Your task to perform on an android device: change timer sound Image 0: 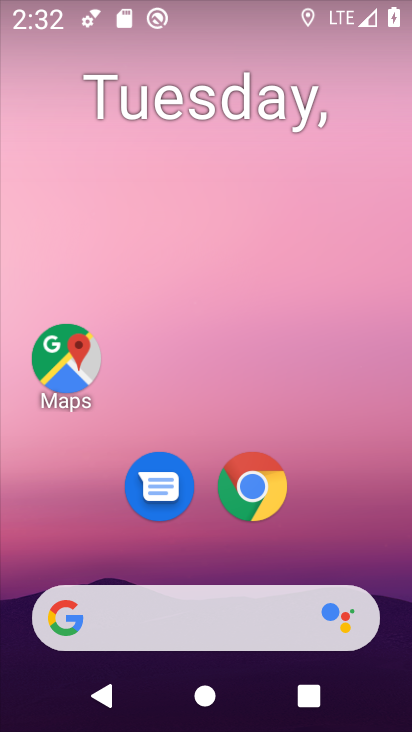
Step 0: press home button
Your task to perform on an android device: change timer sound Image 1: 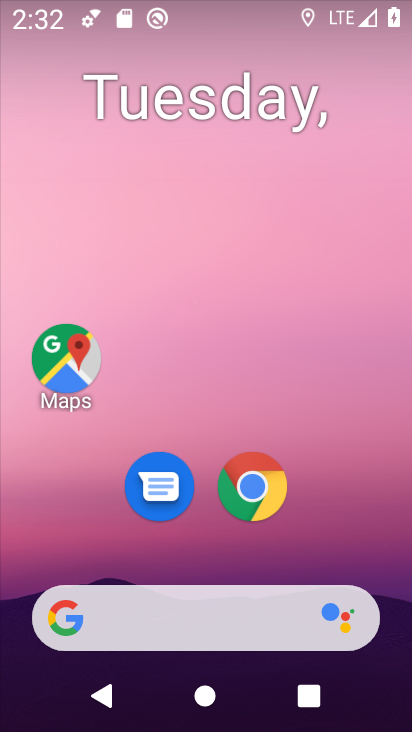
Step 1: drag from (354, 537) to (338, 117)
Your task to perform on an android device: change timer sound Image 2: 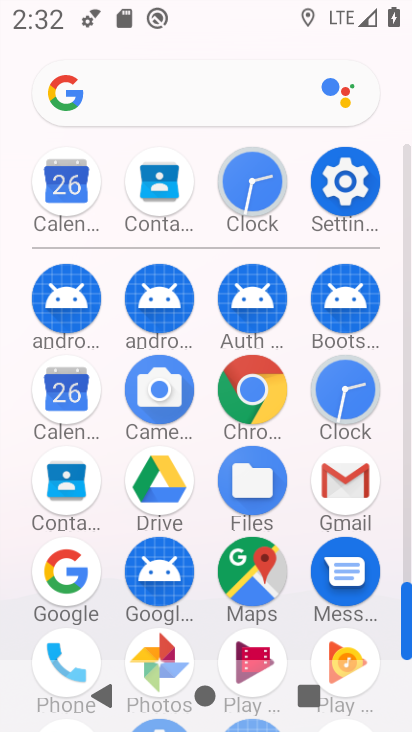
Step 2: click (347, 392)
Your task to perform on an android device: change timer sound Image 3: 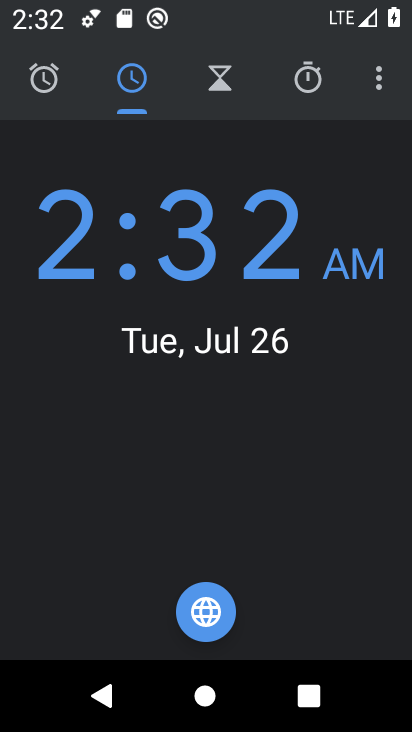
Step 3: click (377, 88)
Your task to perform on an android device: change timer sound Image 4: 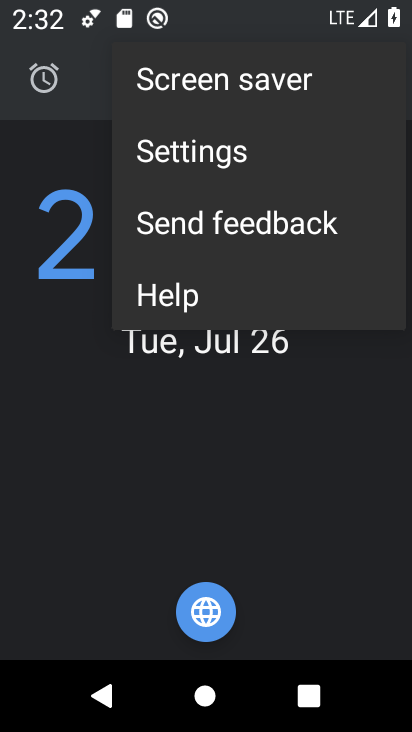
Step 4: click (263, 155)
Your task to perform on an android device: change timer sound Image 5: 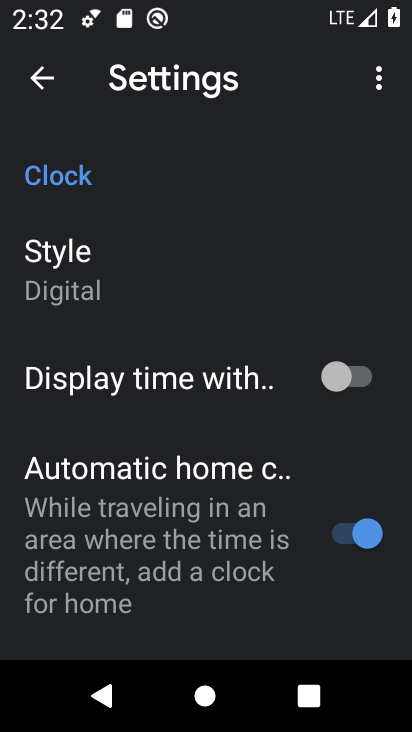
Step 5: drag from (281, 505) to (283, 416)
Your task to perform on an android device: change timer sound Image 6: 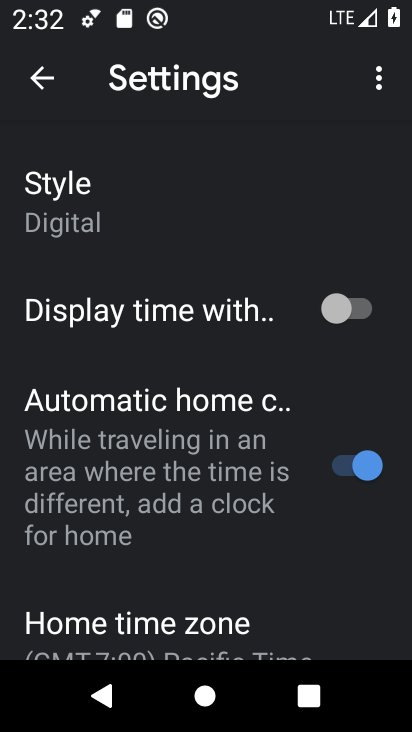
Step 6: drag from (283, 537) to (283, 460)
Your task to perform on an android device: change timer sound Image 7: 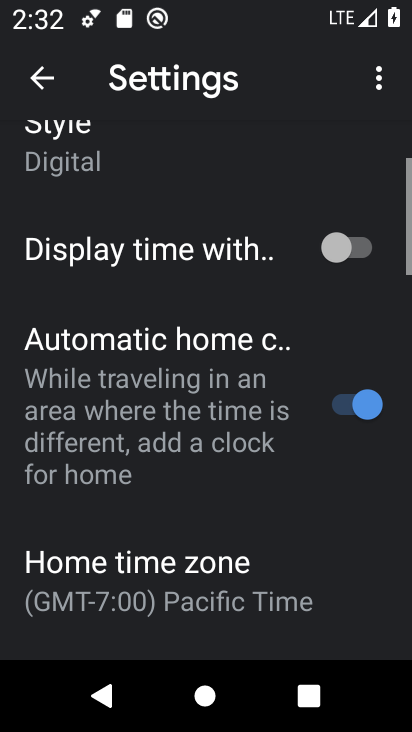
Step 7: click (273, 486)
Your task to perform on an android device: change timer sound Image 8: 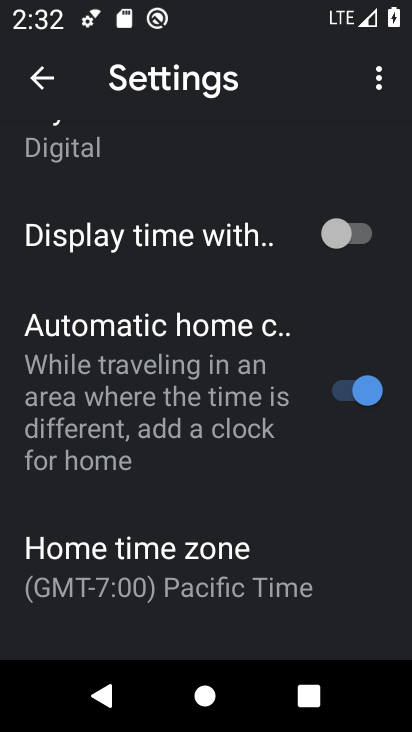
Step 8: drag from (284, 549) to (281, 441)
Your task to perform on an android device: change timer sound Image 9: 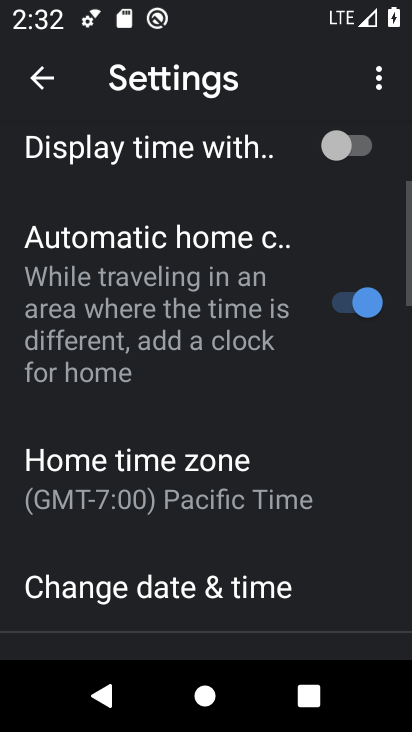
Step 9: drag from (309, 566) to (310, 483)
Your task to perform on an android device: change timer sound Image 10: 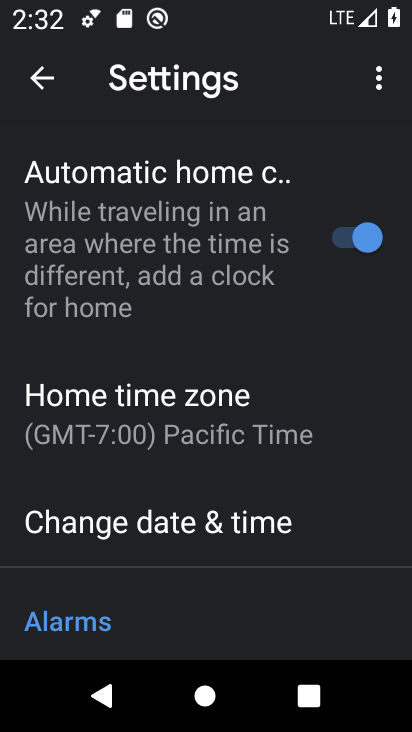
Step 10: drag from (311, 569) to (312, 488)
Your task to perform on an android device: change timer sound Image 11: 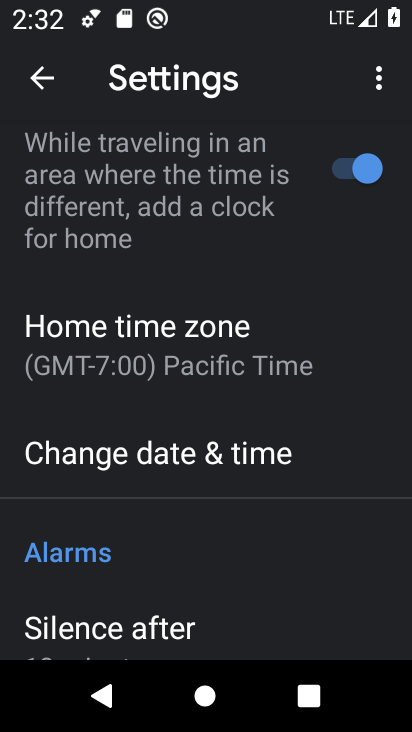
Step 11: drag from (301, 544) to (301, 463)
Your task to perform on an android device: change timer sound Image 12: 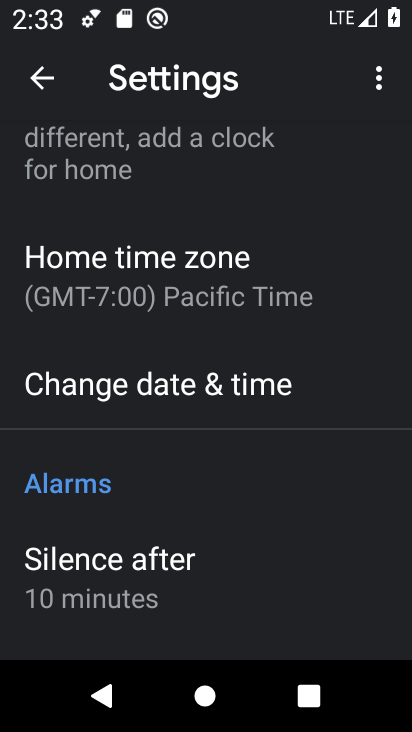
Step 12: drag from (267, 567) to (267, 471)
Your task to perform on an android device: change timer sound Image 13: 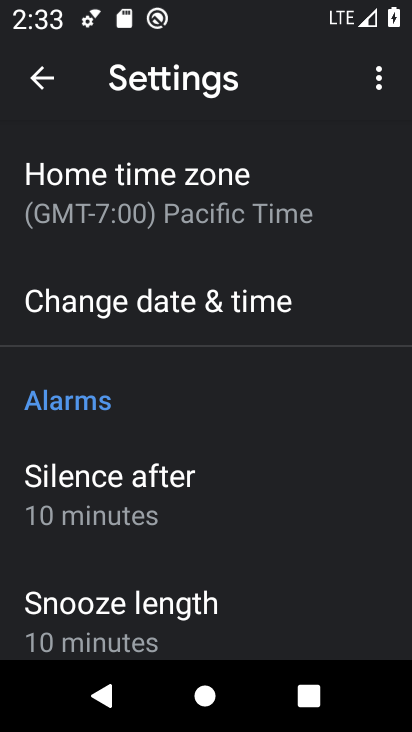
Step 13: drag from (309, 562) to (308, 470)
Your task to perform on an android device: change timer sound Image 14: 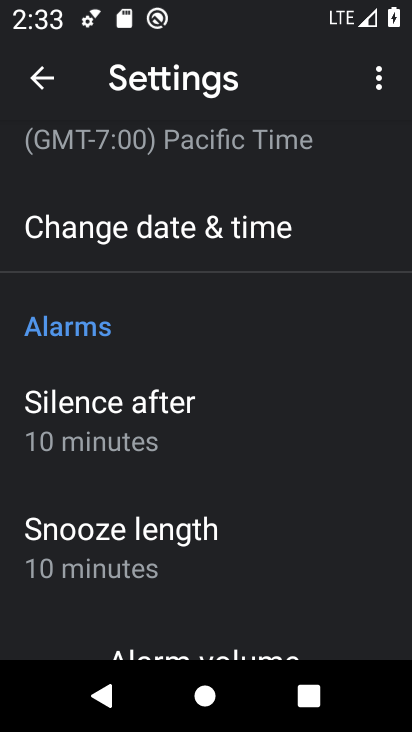
Step 14: drag from (299, 563) to (298, 439)
Your task to perform on an android device: change timer sound Image 15: 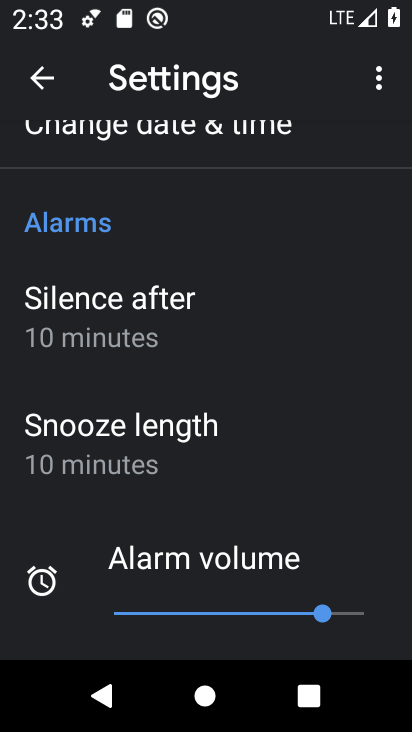
Step 15: drag from (322, 544) to (326, 409)
Your task to perform on an android device: change timer sound Image 16: 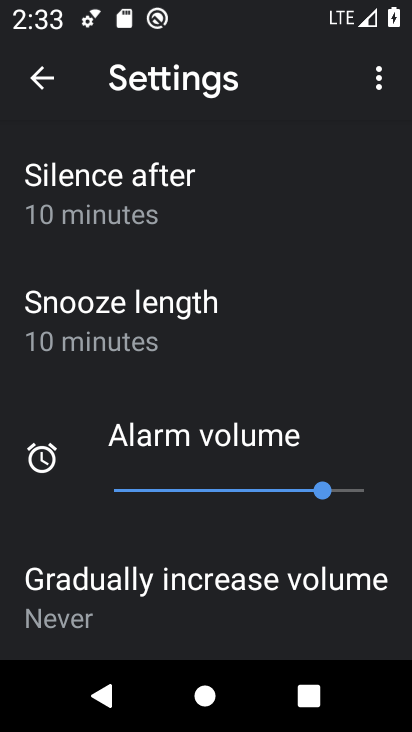
Step 16: drag from (281, 591) to (283, 479)
Your task to perform on an android device: change timer sound Image 17: 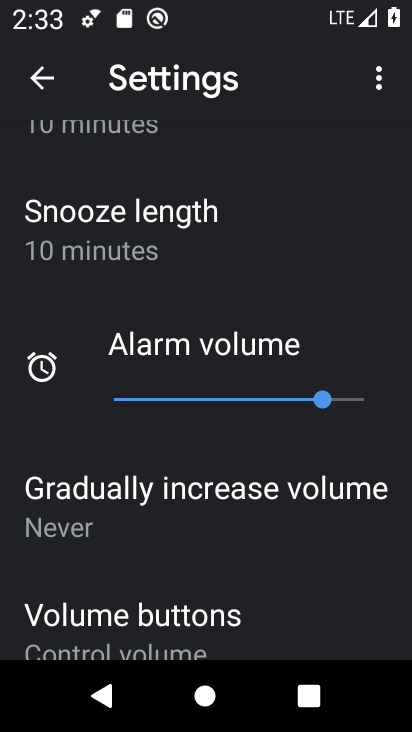
Step 17: drag from (277, 603) to (283, 496)
Your task to perform on an android device: change timer sound Image 18: 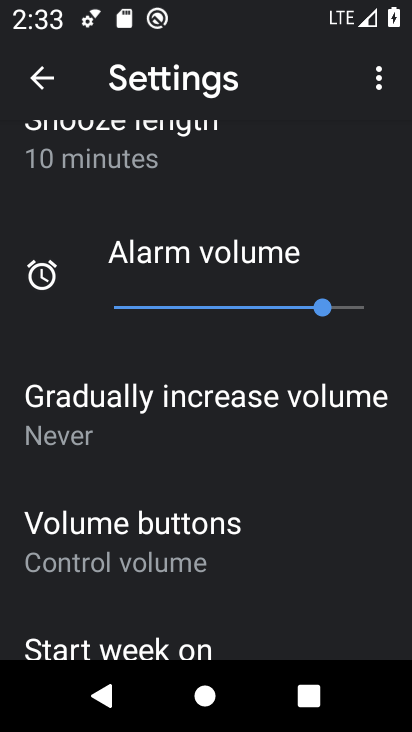
Step 18: drag from (318, 565) to (316, 452)
Your task to perform on an android device: change timer sound Image 19: 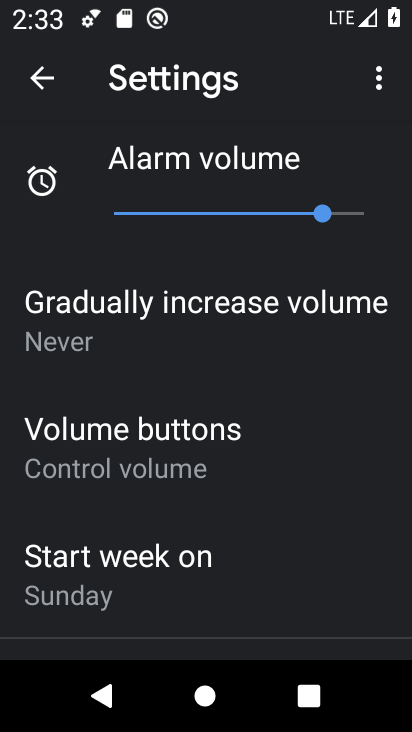
Step 19: drag from (281, 592) to (282, 468)
Your task to perform on an android device: change timer sound Image 20: 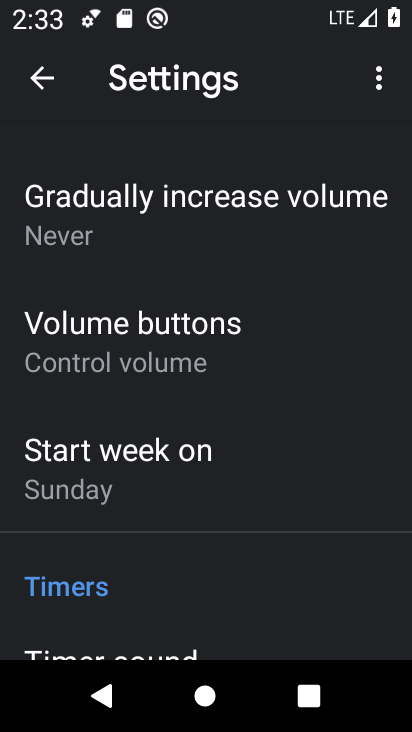
Step 20: drag from (263, 576) to (263, 497)
Your task to perform on an android device: change timer sound Image 21: 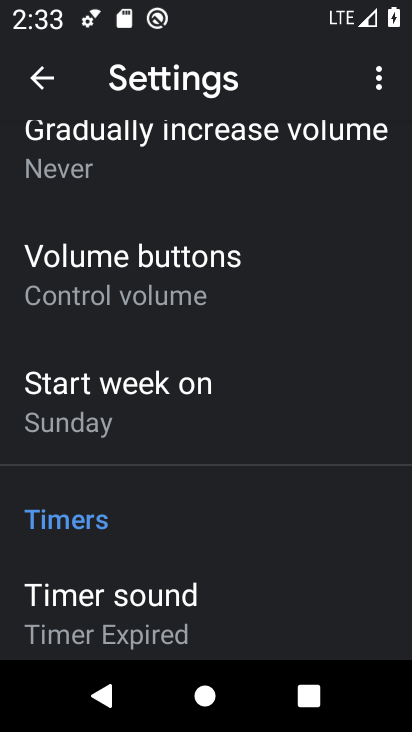
Step 21: click (221, 574)
Your task to perform on an android device: change timer sound Image 22: 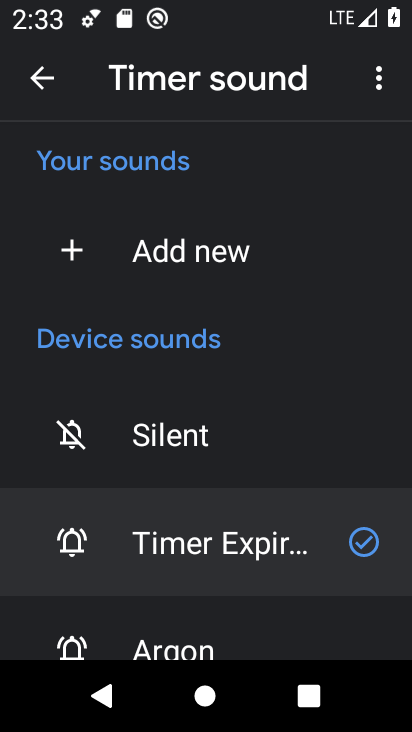
Step 22: click (164, 434)
Your task to perform on an android device: change timer sound Image 23: 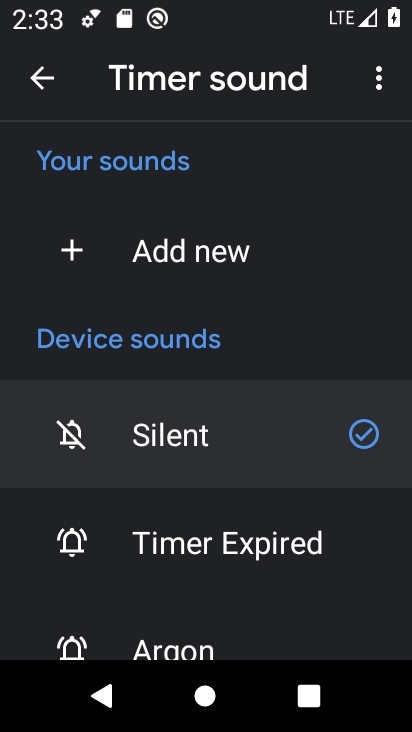
Step 23: task complete